Your task to perform on an android device: Show me recent news Image 0: 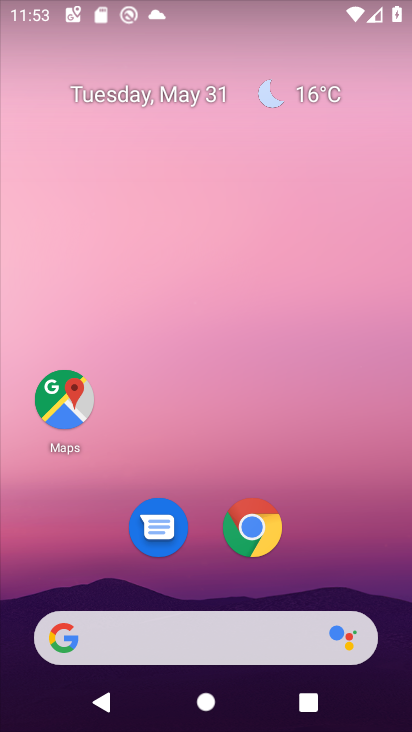
Step 0: click (130, 640)
Your task to perform on an android device: Show me recent news Image 1: 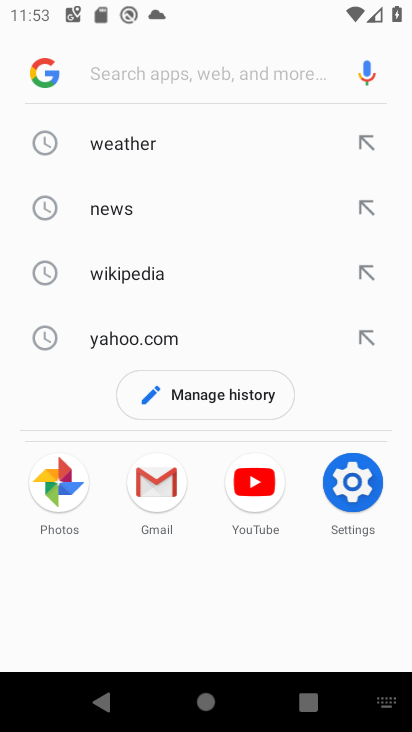
Step 1: type "recent news"
Your task to perform on an android device: Show me recent news Image 2: 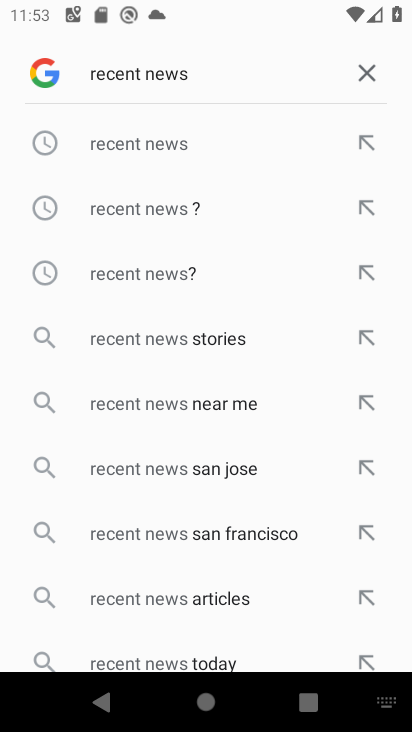
Step 2: click (121, 152)
Your task to perform on an android device: Show me recent news Image 3: 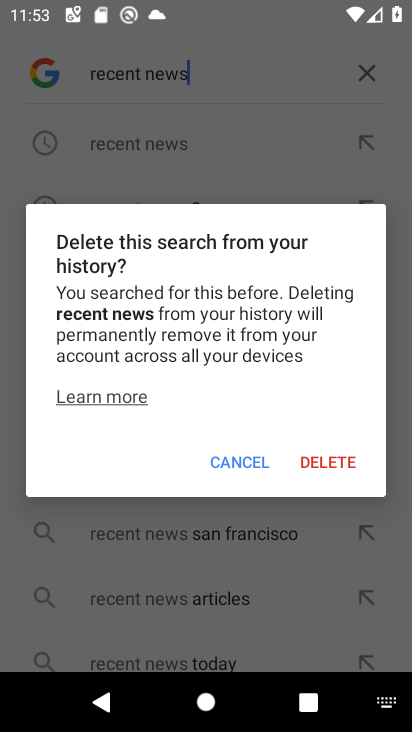
Step 3: click (226, 463)
Your task to perform on an android device: Show me recent news Image 4: 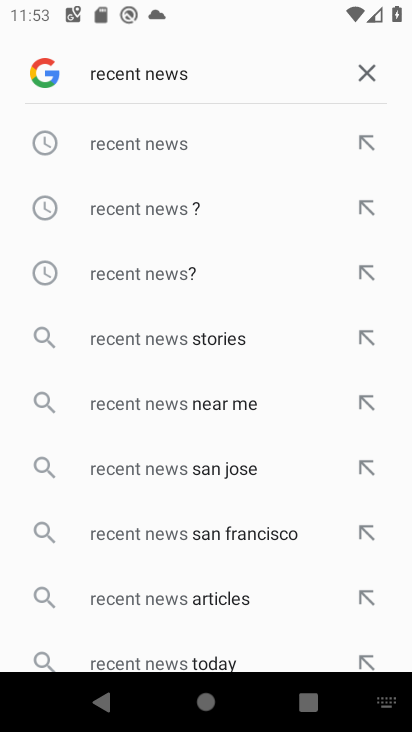
Step 4: click (117, 151)
Your task to perform on an android device: Show me recent news Image 5: 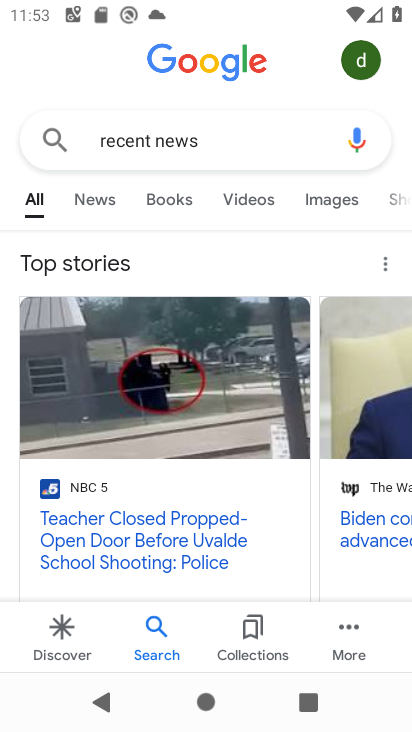
Step 5: drag from (167, 528) to (179, 318)
Your task to perform on an android device: Show me recent news Image 6: 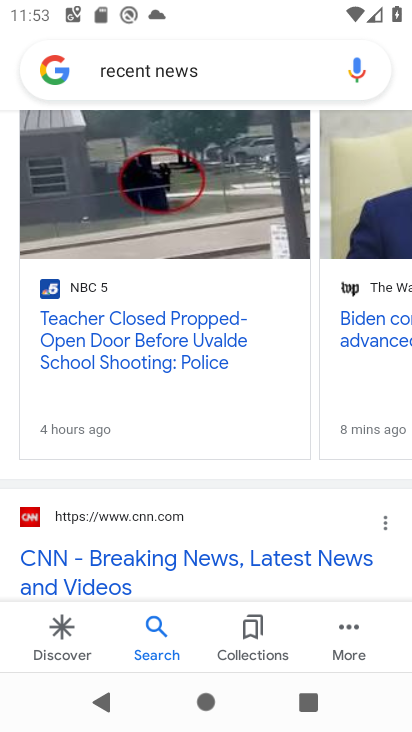
Step 6: click (87, 203)
Your task to perform on an android device: Show me recent news Image 7: 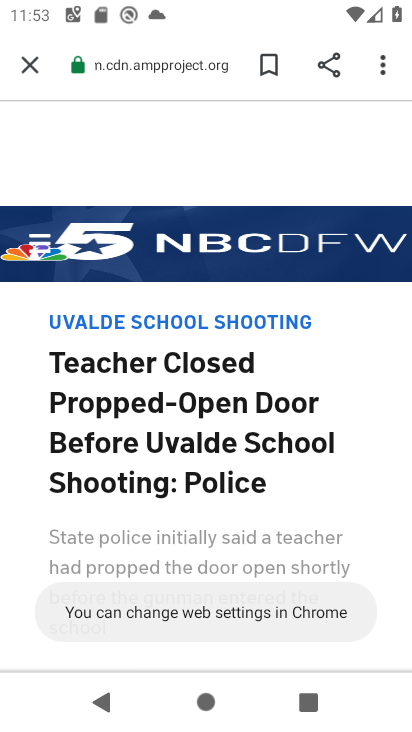
Step 7: task complete